Your task to perform on an android device: turn on bluetooth scan Image 0: 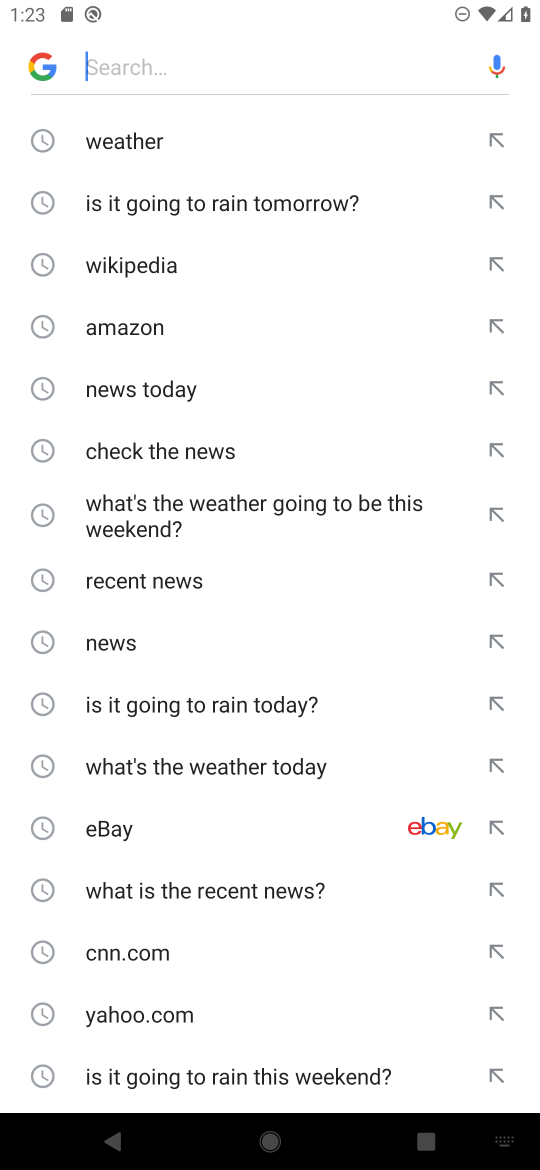
Step 0: press home button
Your task to perform on an android device: turn on bluetooth scan Image 1: 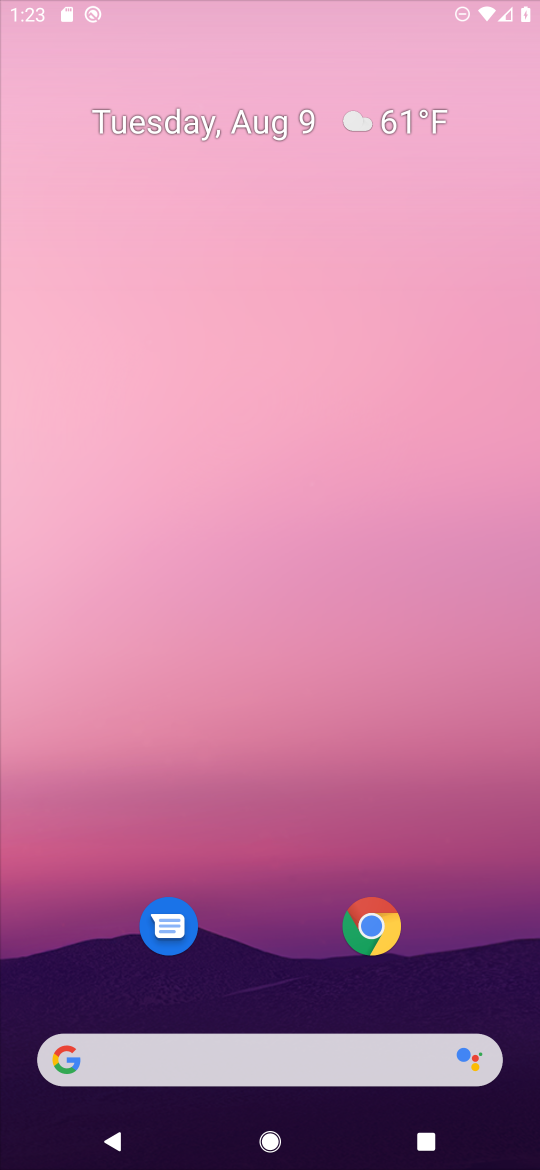
Step 1: drag from (25, 896) to (249, 301)
Your task to perform on an android device: turn on bluetooth scan Image 2: 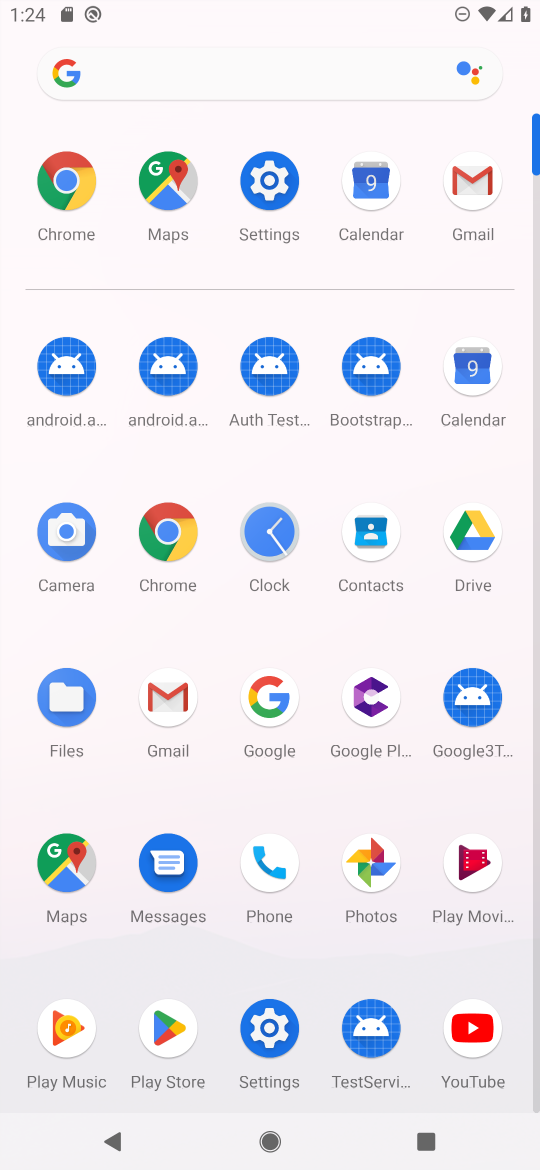
Step 2: click (260, 186)
Your task to perform on an android device: turn on bluetooth scan Image 3: 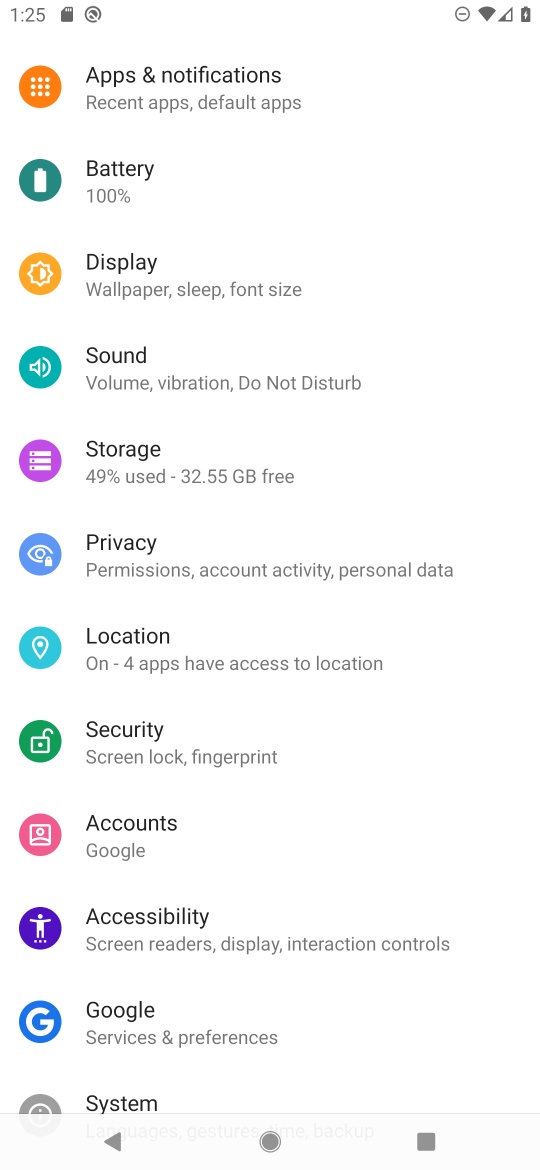
Step 3: click (197, 652)
Your task to perform on an android device: turn on bluetooth scan Image 4: 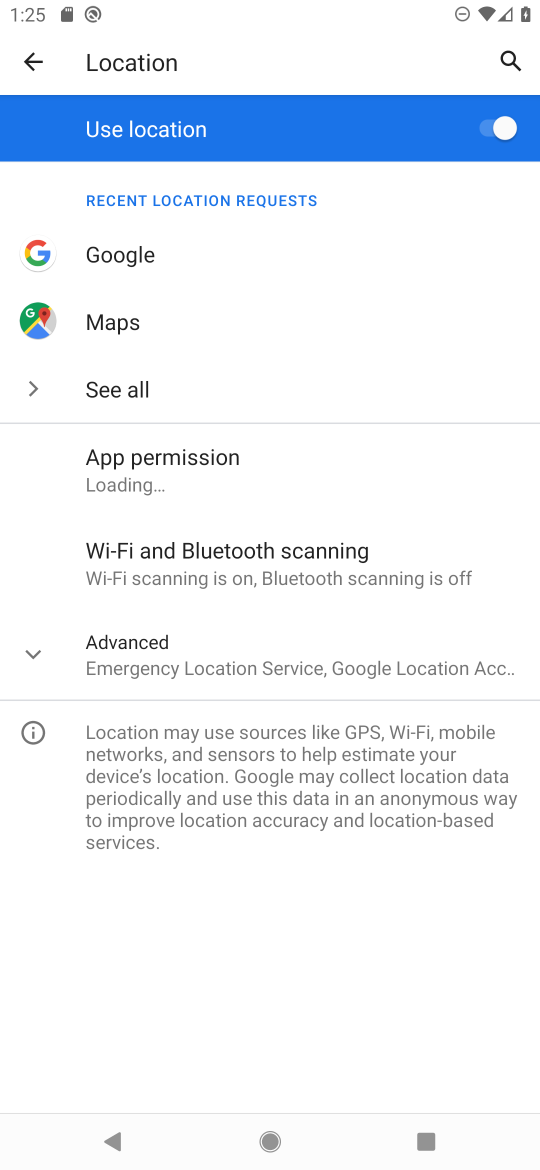
Step 4: click (174, 579)
Your task to perform on an android device: turn on bluetooth scan Image 5: 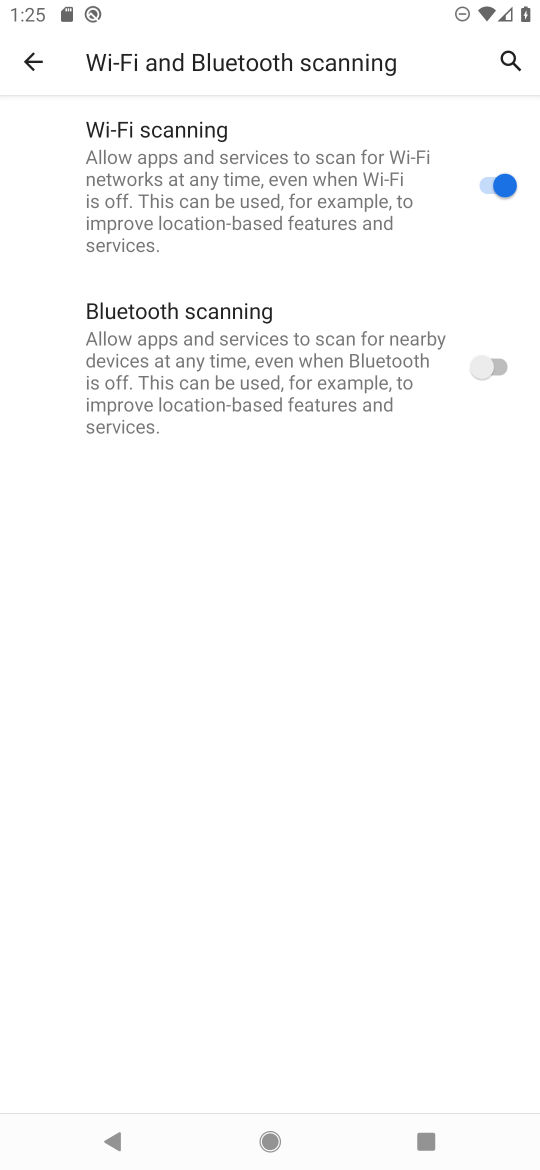
Step 5: click (487, 379)
Your task to perform on an android device: turn on bluetooth scan Image 6: 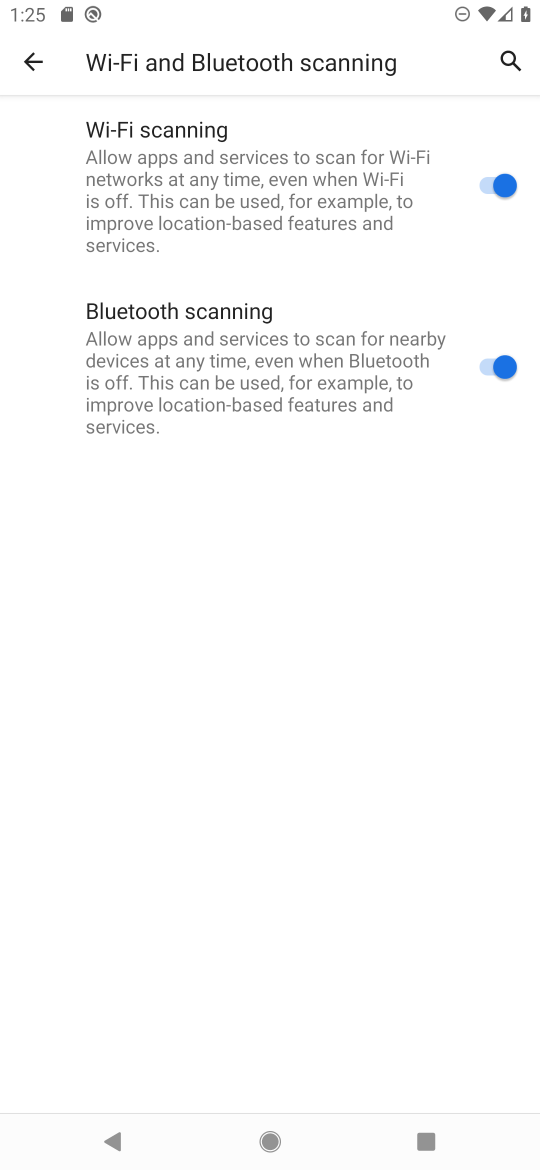
Step 6: task complete